Your task to perform on an android device: Search for the best rated headphones on AliExpress. Image 0: 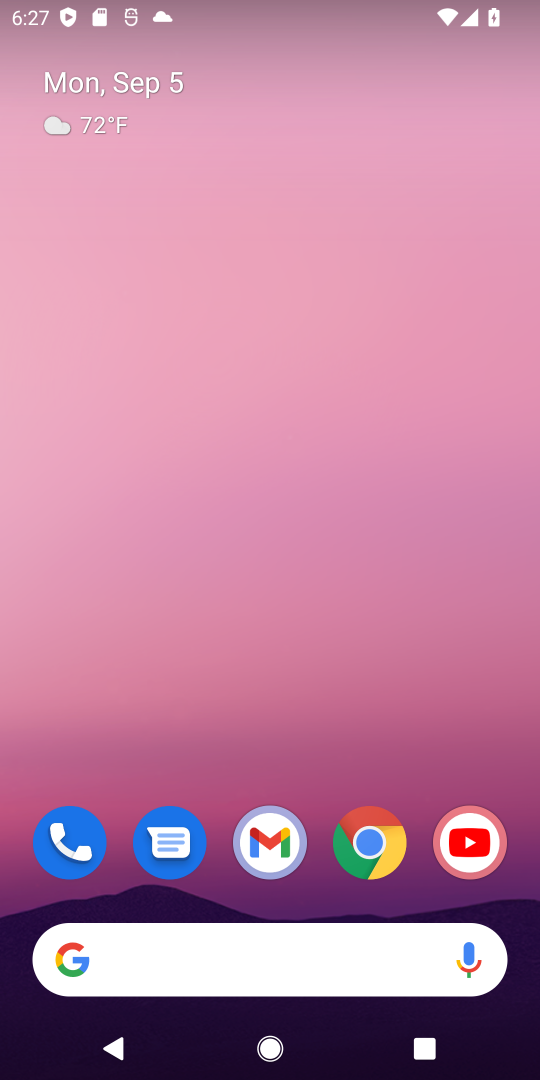
Step 0: click (375, 847)
Your task to perform on an android device: Search for the best rated headphones on AliExpress. Image 1: 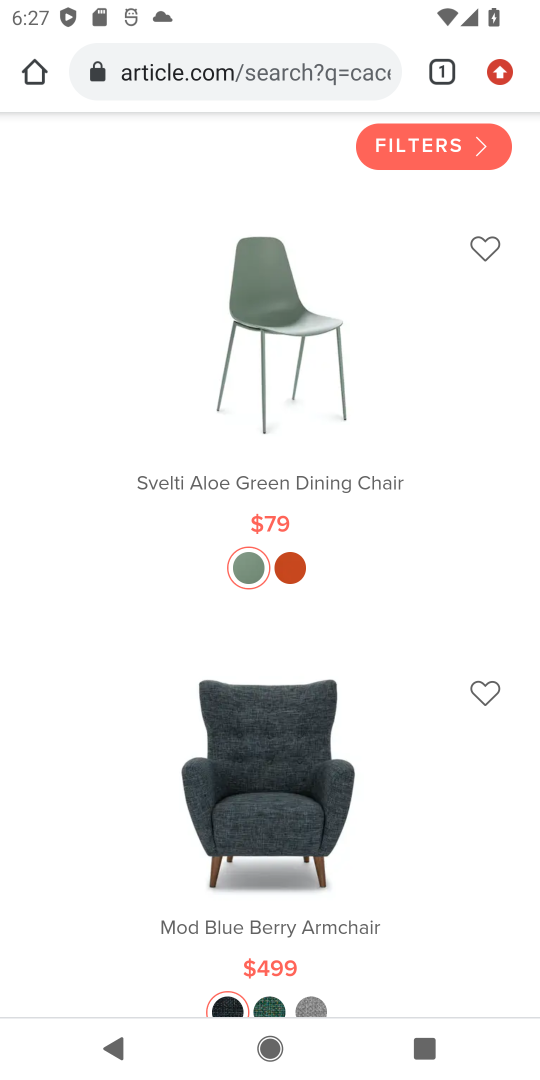
Step 1: click (267, 59)
Your task to perform on an android device: Search for the best rated headphones on AliExpress. Image 2: 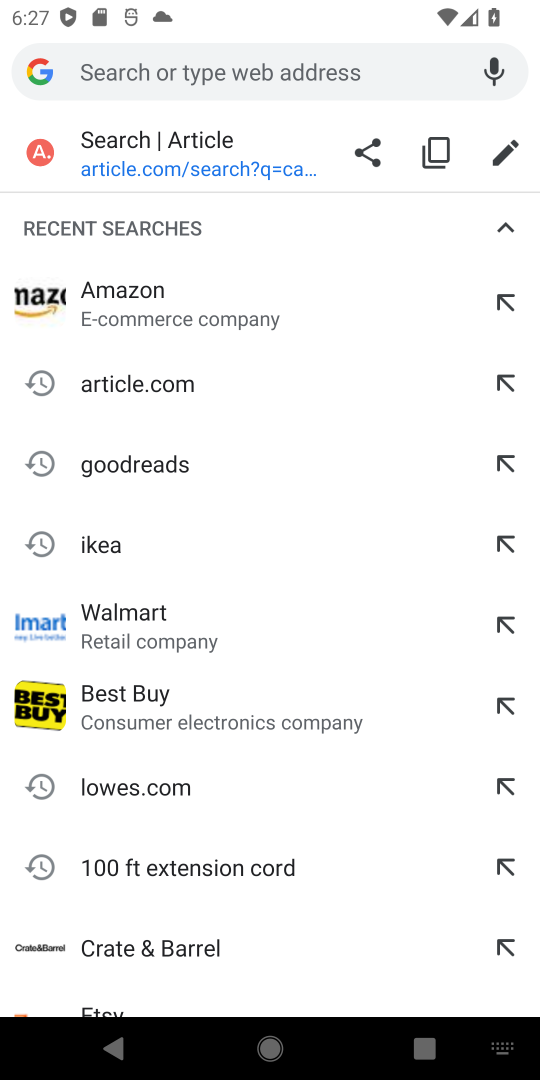
Step 2: type "AliExpress"
Your task to perform on an android device: Search for the best rated headphones on AliExpress. Image 3: 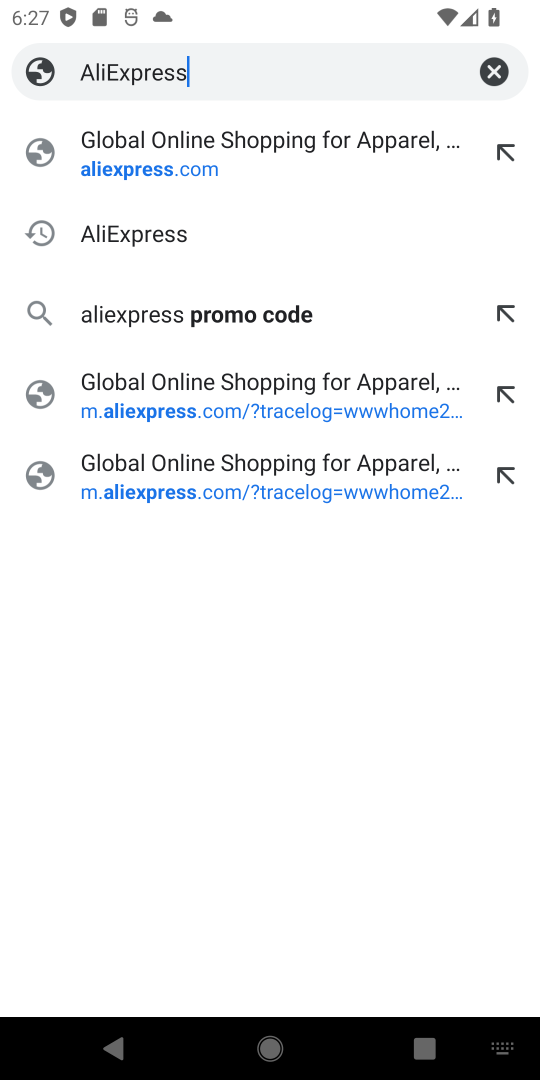
Step 3: click (117, 240)
Your task to perform on an android device: Search for the best rated headphones on AliExpress. Image 4: 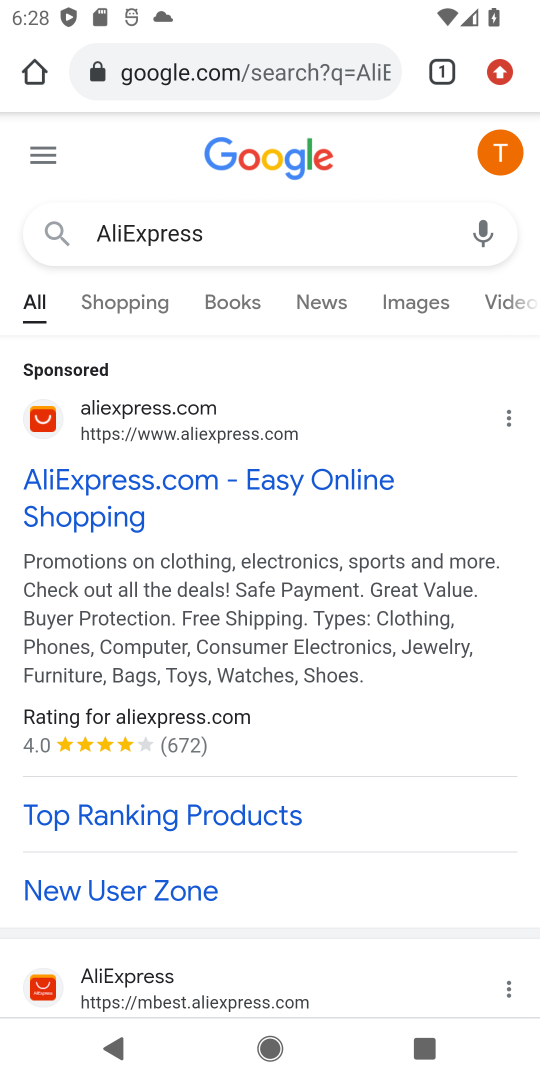
Step 4: click (197, 475)
Your task to perform on an android device: Search for the best rated headphones on AliExpress. Image 5: 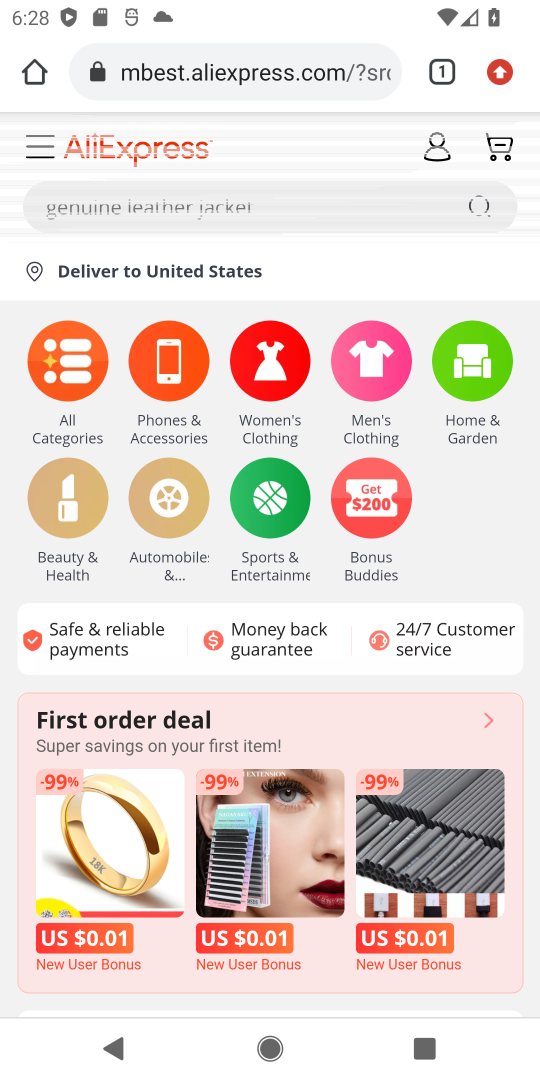
Step 5: click (158, 203)
Your task to perform on an android device: Search for the best rated headphones on AliExpress. Image 6: 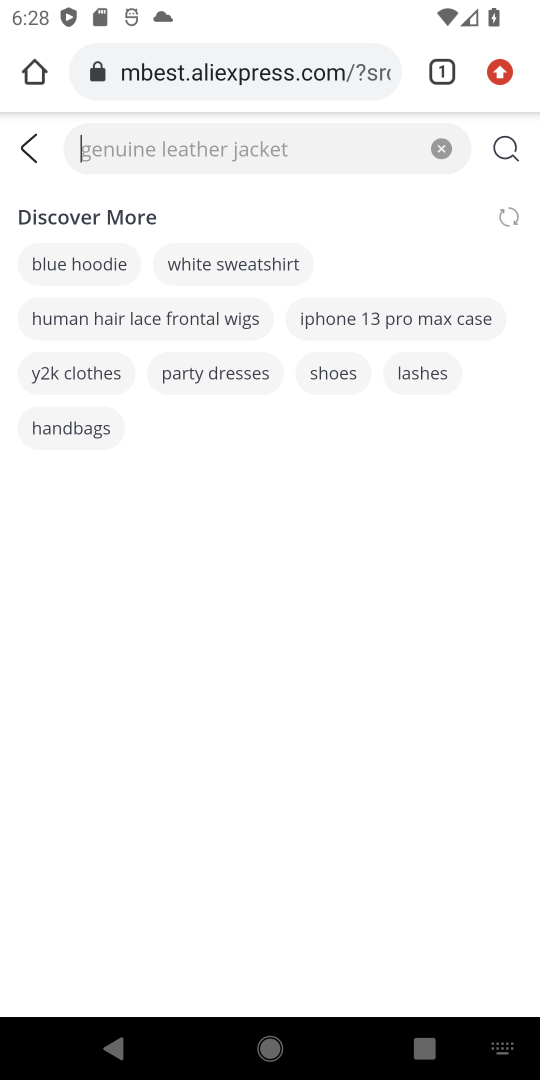
Step 6: type "best rated headphones"
Your task to perform on an android device: Search for the best rated headphones on AliExpress. Image 7: 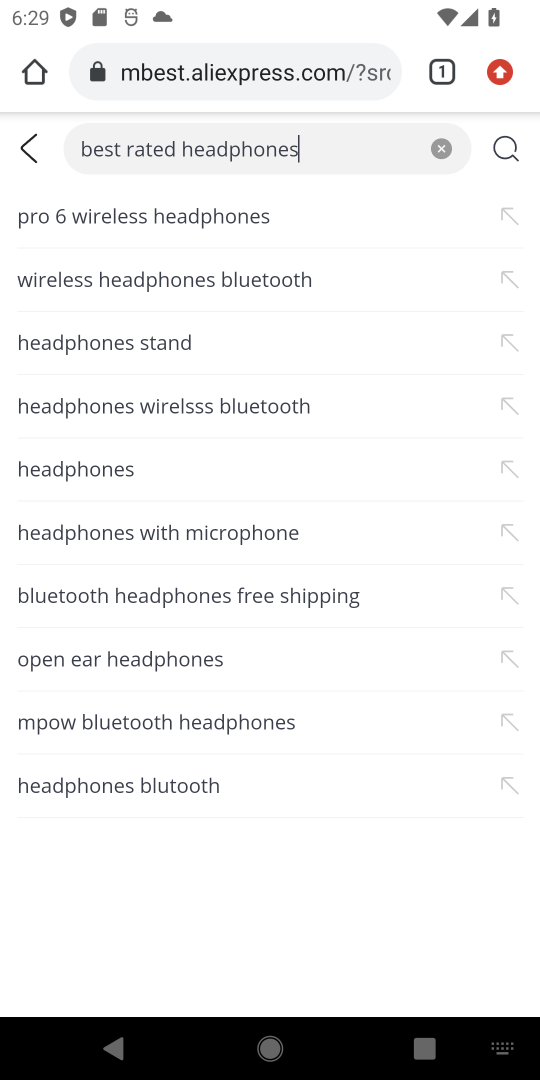
Step 7: click (503, 153)
Your task to perform on an android device: Search for the best rated headphones on AliExpress. Image 8: 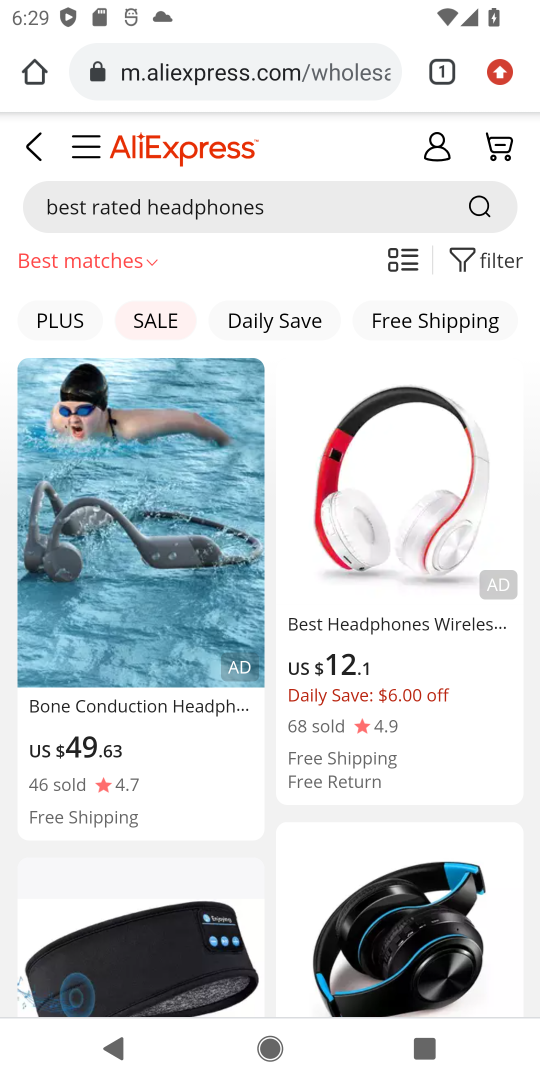
Step 8: task complete